Your task to perform on an android device: Open notification settings Image 0: 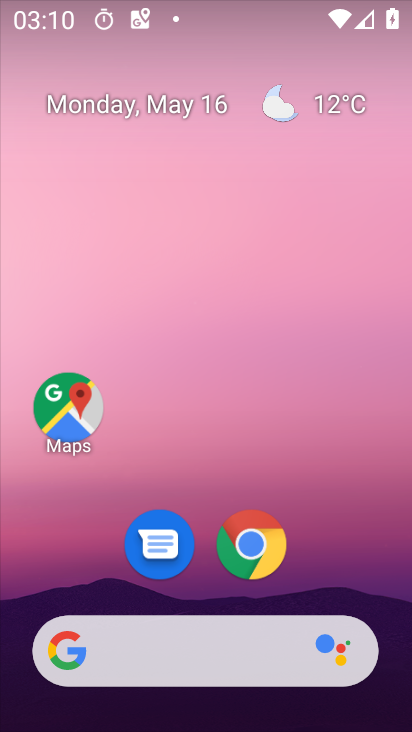
Step 0: drag from (189, 713) to (188, 113)
Your task to perform on an android device: Open notification settings Image 1: 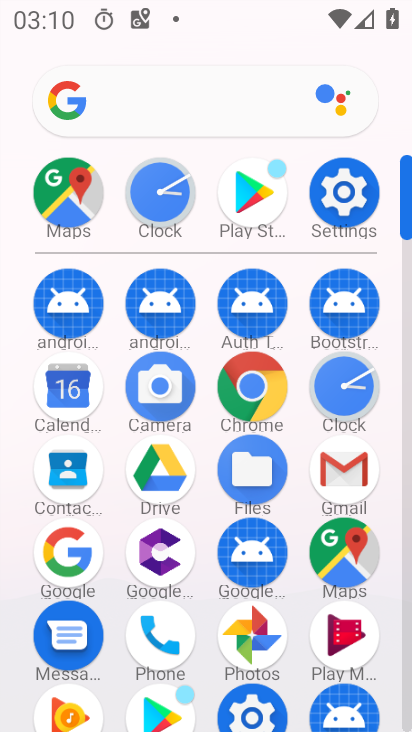
Step 1: click (338, 194)
Your task to perform on an android device: Open notification settings Image 2: 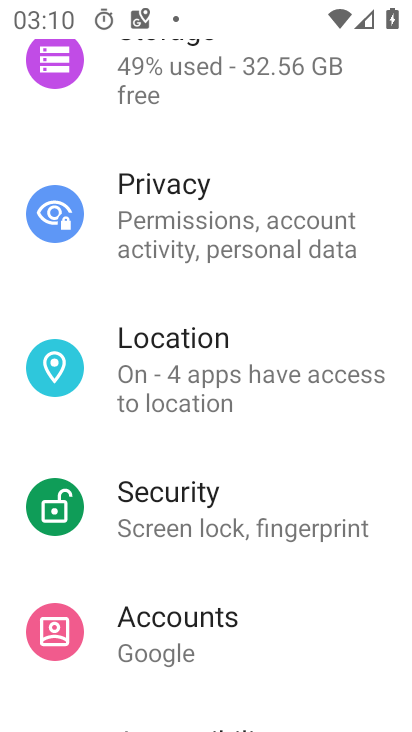
Step 2: drag from (302, 143) to (287, 600)
Your task to perform on an android device: Open notification settings Image 3: 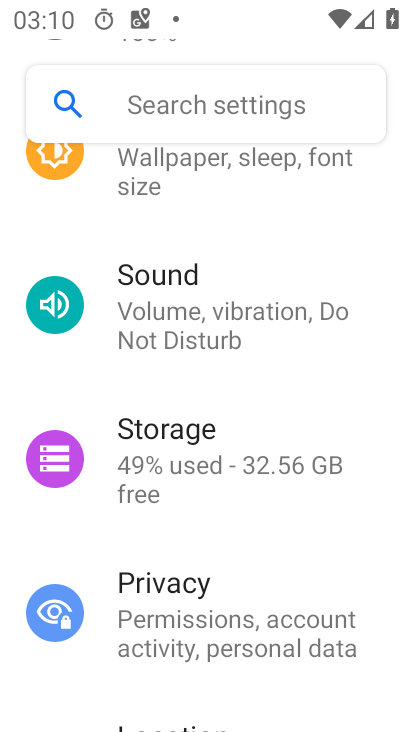
Step 3: drag from (237, 216) to (230, 516)
Your task to perform on an android device: Open notification settings Image 4: 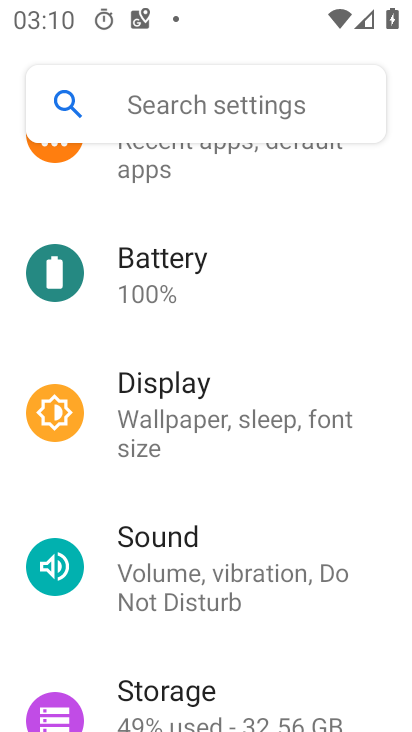
Step 4: drag from (201, 245) to (199, 496)
Your task to perform on an android device: Open notification settings Image 5: 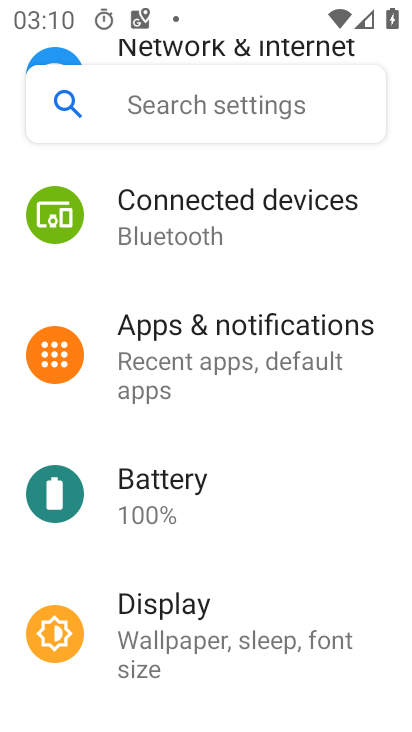
Step 5: click (194, 334)
Your task to perform on an android device: Open notification settings Image 6: 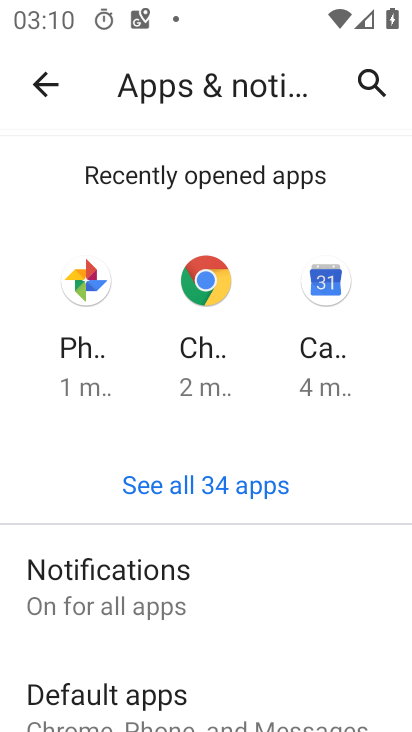
Step 6: click (81, 600)
Your task to perform on an android device: Open notification settings Image 7: 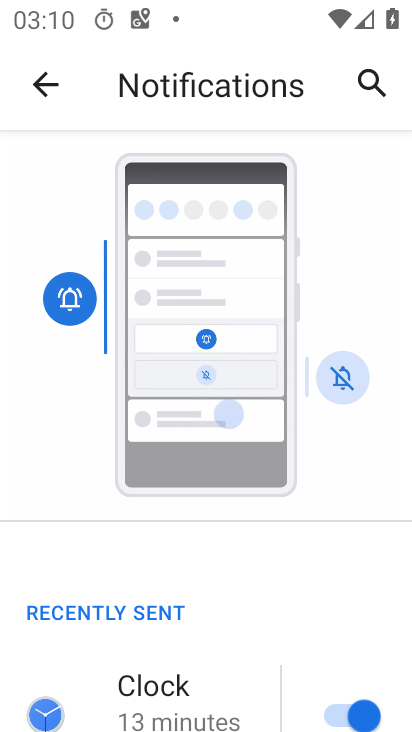
Step 7: task complete